Your task to perform on an android device: find photos in the google photos app Image 0: 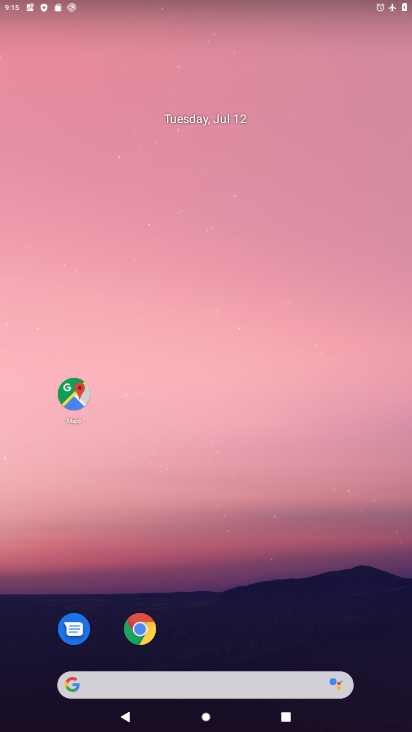
Step 0: drag from (262, 601) to (160, 0)
Your task to perform on an android device: find photos in the google photos app Image 1: 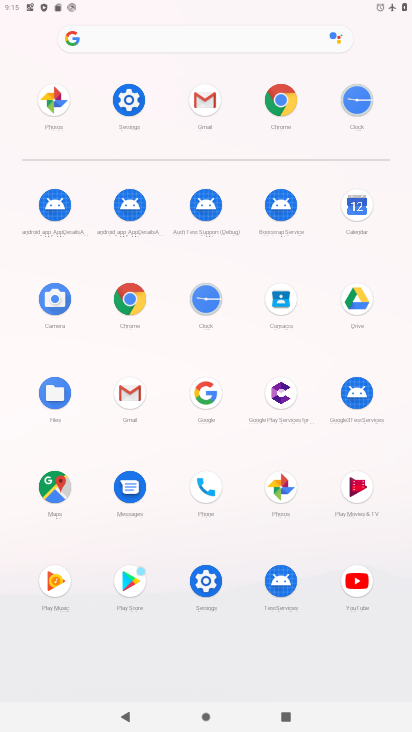
Step 1: click (275, 490)
Your task to perform on an android device: find photos in the google photos app Image 2: 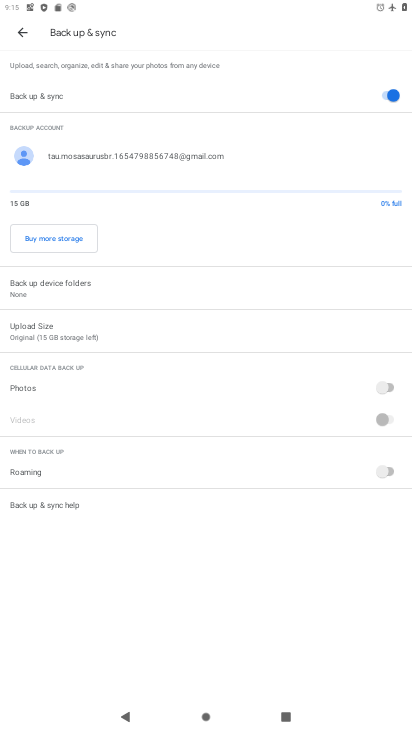
Step 2: click (23, 30)
Your task to perform on an android device: find photos in the google photos app Image 3: 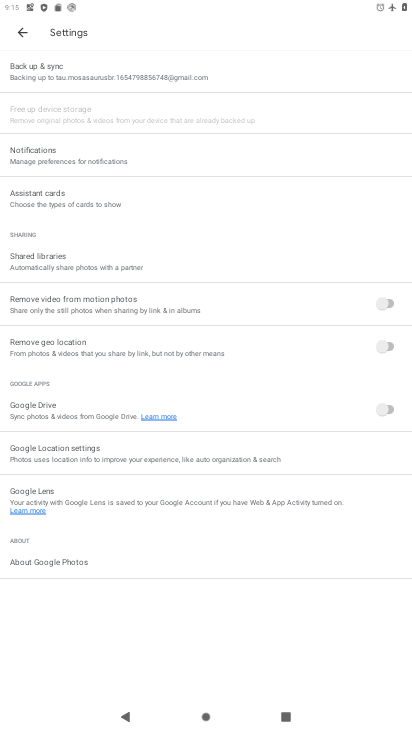
Step 3: click (9, 23)
Your task to perform on an android device: find photos in the google photos app Image 4: 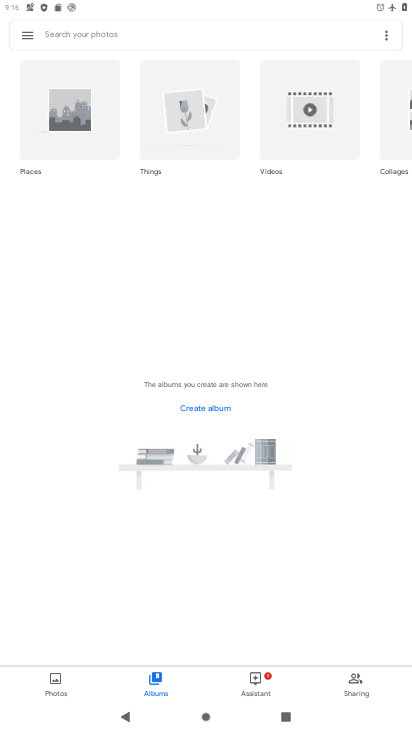
Step 4: task complete